Your task to perform on an android device: turn off picture-in-picture Image 0: 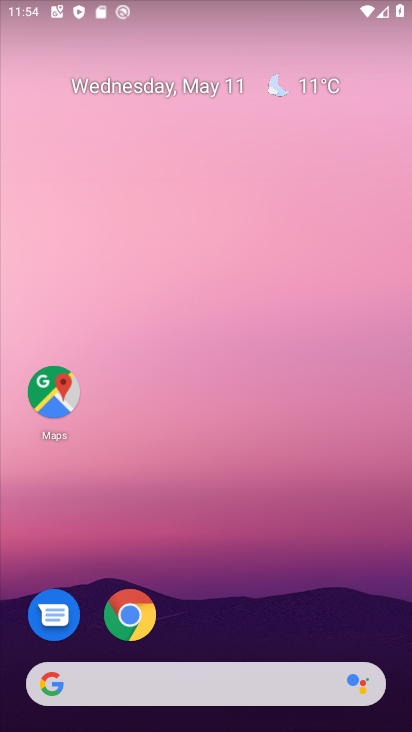
Step 0: click (125, 615)
Your task to perform on an android device: turn off picture-in-picture Image 1: 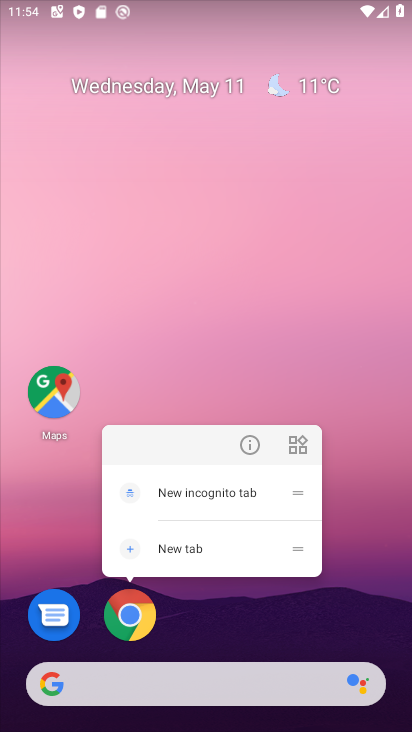
Step 1: click (245, 446)
Your task to perform on an android device: turn off picture-in-picture Image 2: 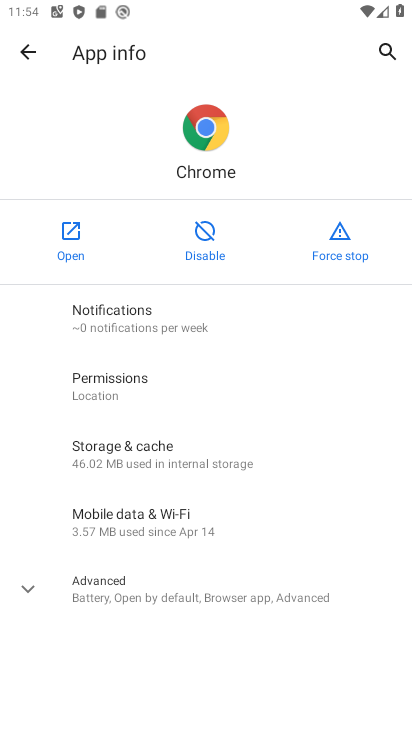
Step 2: click (171, 589)
Your task to perform on an android device: turn off picture-in-picture Image 3: 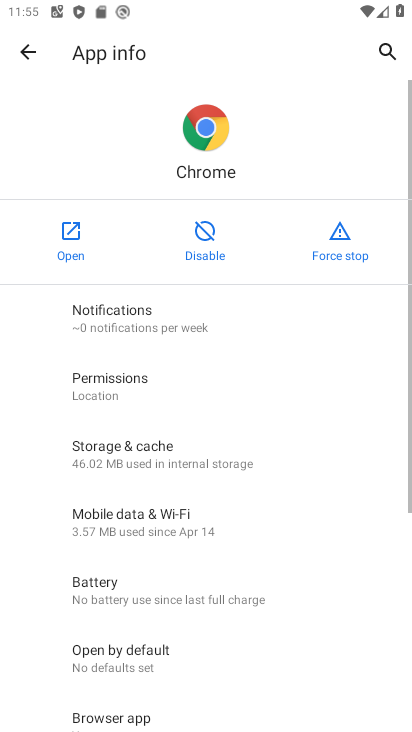
Step 3: drag from (390, 594) to (353, 121)
Your task to perform on an android device: turn off picture-in-picture Image 4: 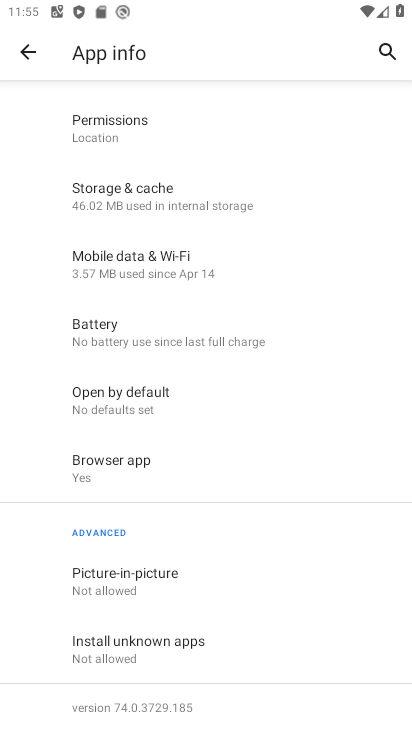
Step 4: click (136, 590)
Your task to perform on an android device: turn off picture-in-picture Image 5: 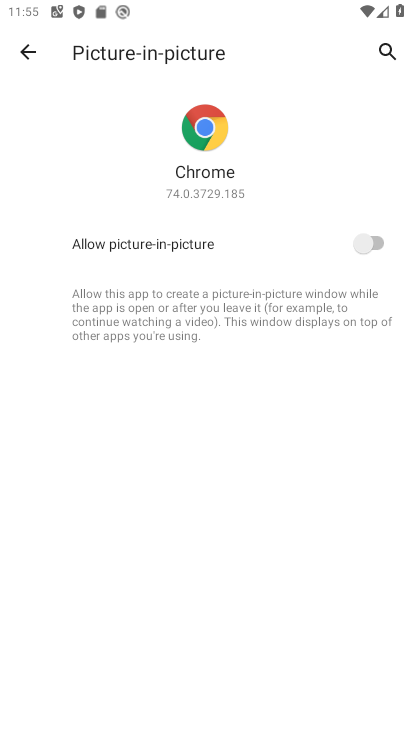
Step 5: task complete